Your task to perform on an android device: Open ESPN.com Image 0: 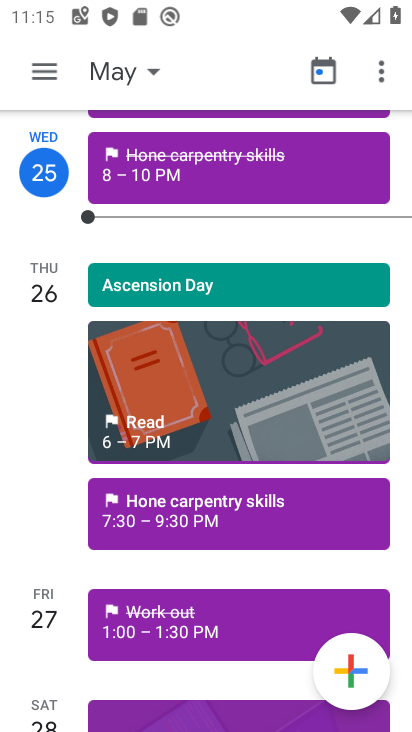
Step 0: press home button
Your task to perform on an android device: Open ESPN.com Image 1: 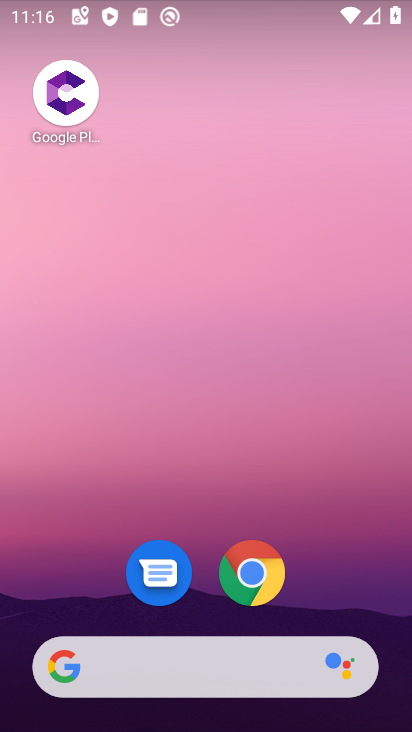
Step 1: click (250, 570)
Your task to perform on an android device: Open ESPN.com Image 2: 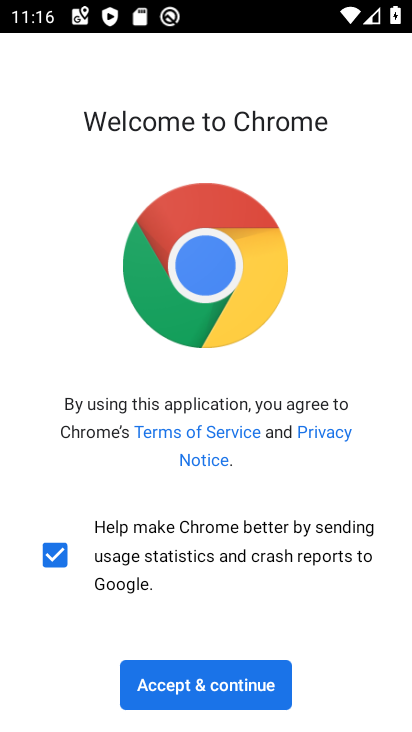
Step 2: click (217, 682)
Your task to perform on an android device: Open ESPN.com Image 3: 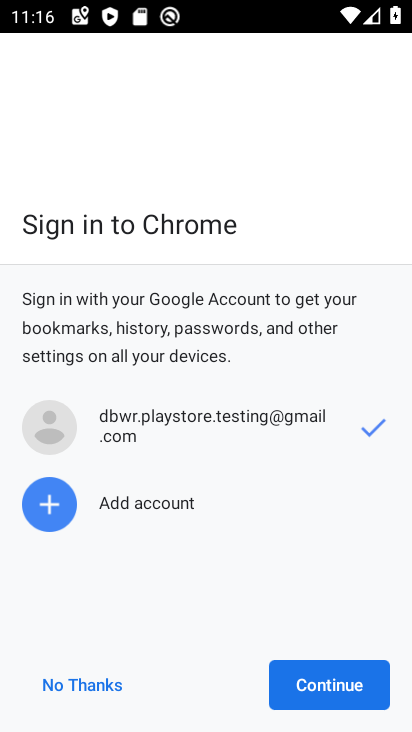
Step 3: click (331, 681)
Your task to perform on an android device: Open ESPN.com Image 4: 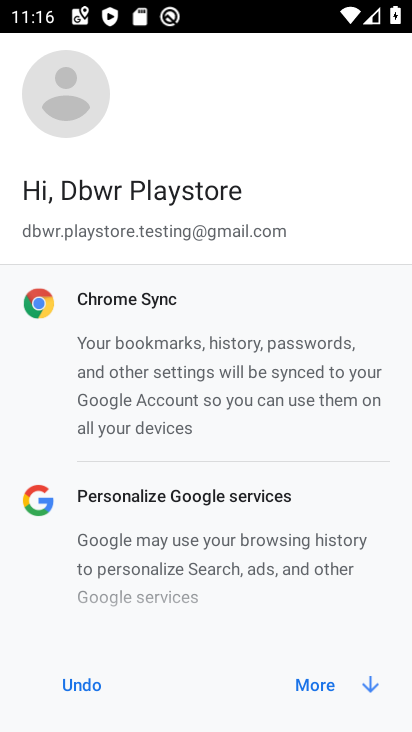
Step 4: click (369, 681)
Your task to perform on an android device: Open ESPN.com Image 5: 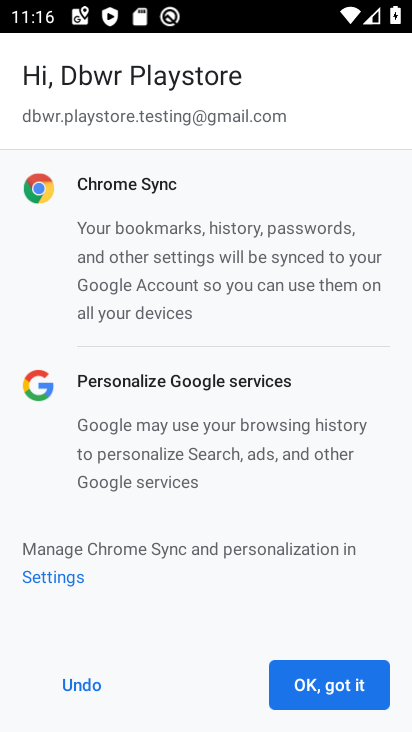
Step 5: click (349, 683)
Your task to perform on an android device: Open ESPN.com Image 6: 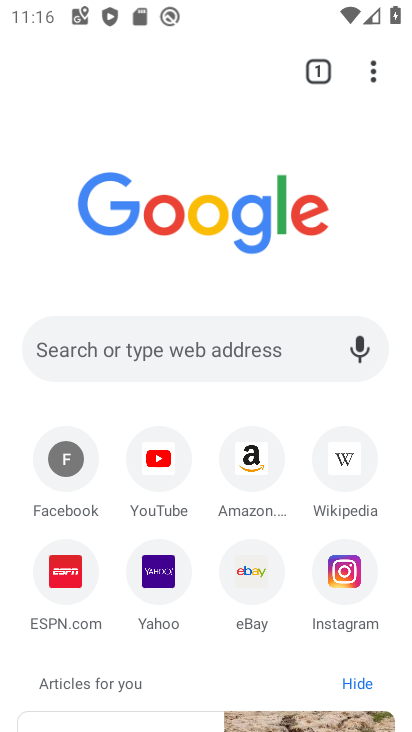
Step 6: click (63, 566)
Your task to perform on an android device: Open ESPN.com Image 7: 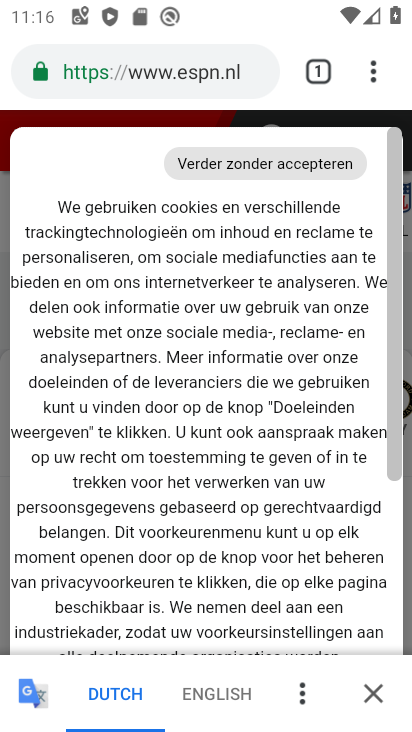
Step 7: task complete